Your task to perform on an android device: What's the weather today? Image 0: 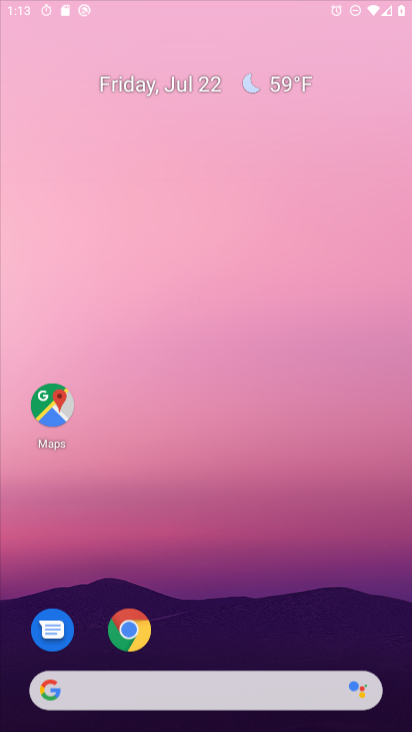
Step 0: press home button
Your task to perform on an android device: What's the weather today? Image 1: 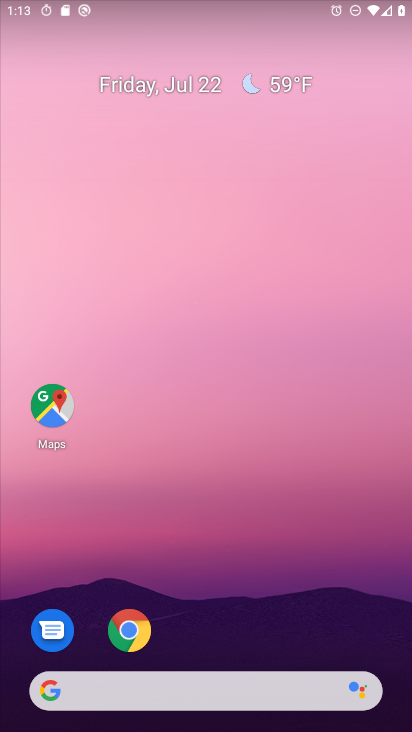
Step 1: click (47, 700)
Your task to perform on an android device: What's the weather today? Image 2: 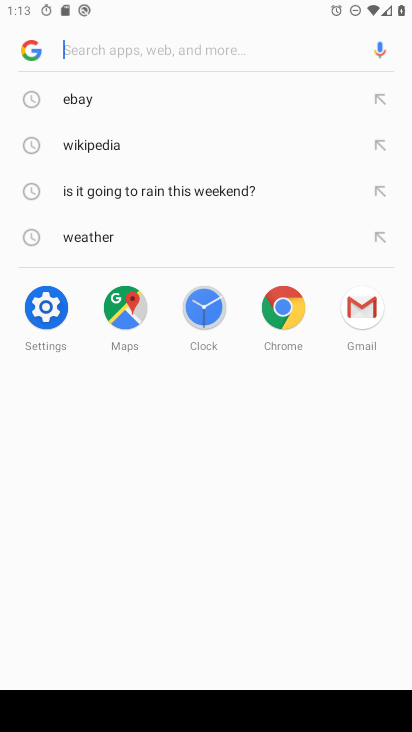
Step 2: type "weather today?"
Your task to perform on an android device: What's the weather today? Image 3: 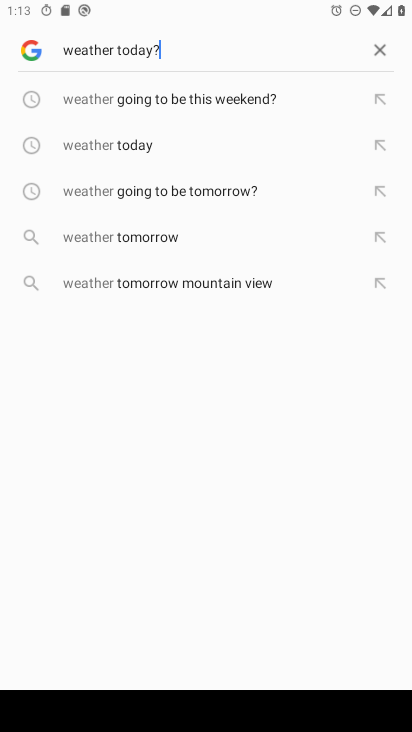
Step 3: press enter
Your task to perform on an android device: What's the weather today? Image 4: 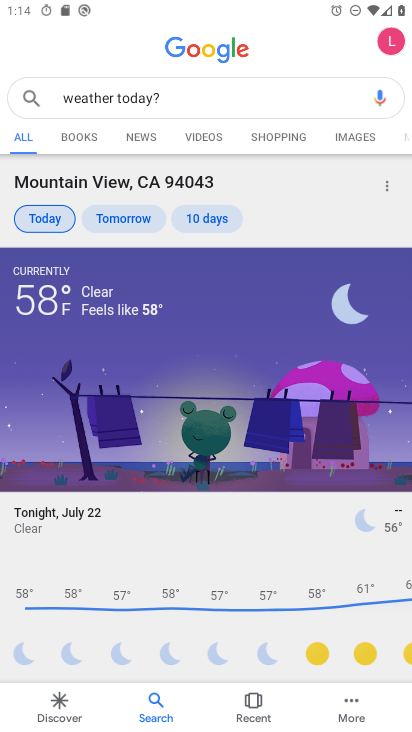
Step 4: task complete